Your task to perform on an android device: toggle translation in the chrome app Image 0: 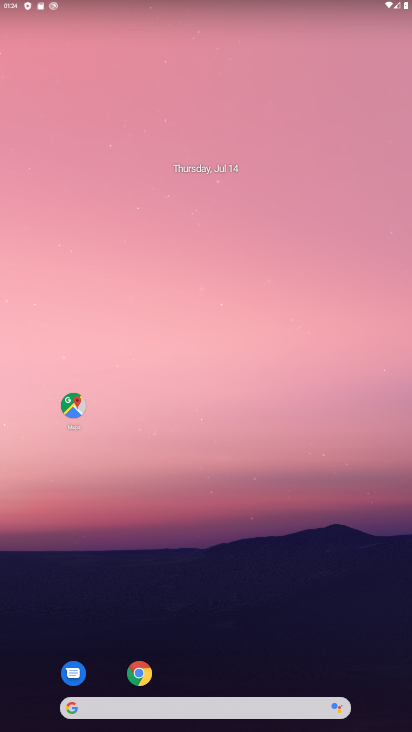
Step 0: click (130, 681)
Your task to perform on an android device: toggle translation in the chrome app Image 1: 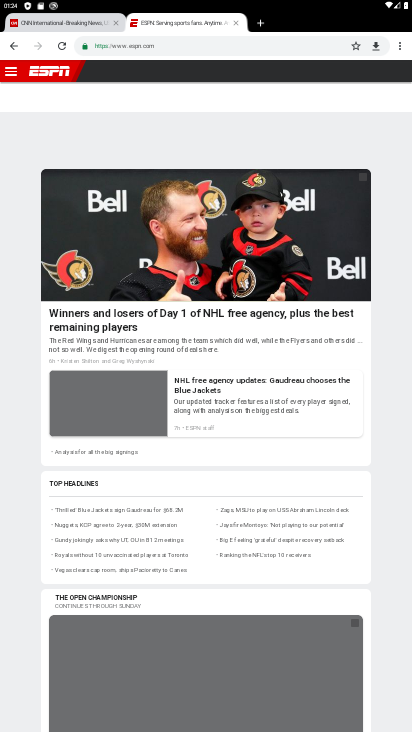
Step 1: click (55, 152)
Your task to perform on an android device: toggle translation in the chrome app Image 2: 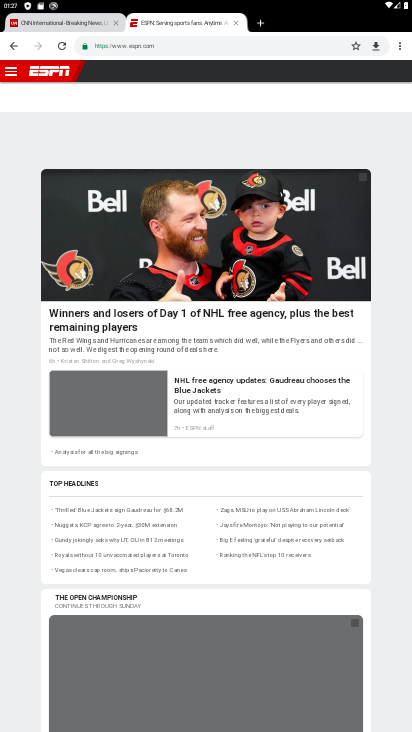
Step 2: click (398, 51)
Your task to perform on an android device: toggle translation in the chrome app Image 3: 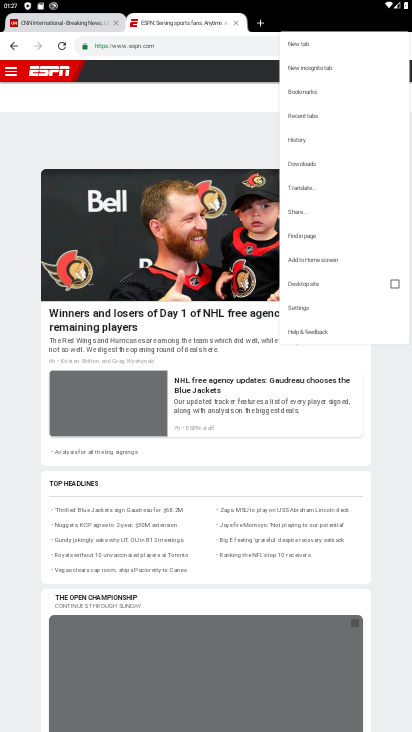
Step 3: click (322, 313)
Your task to perform on an android device: toggle translation in the chrome app Image 4: 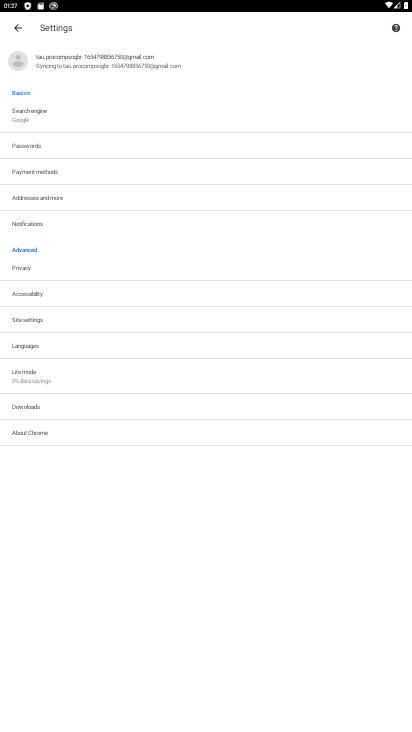
Step 4: click (150, 349)
Your task to perform on an android device: toggle translation in the chrome app Image 5: 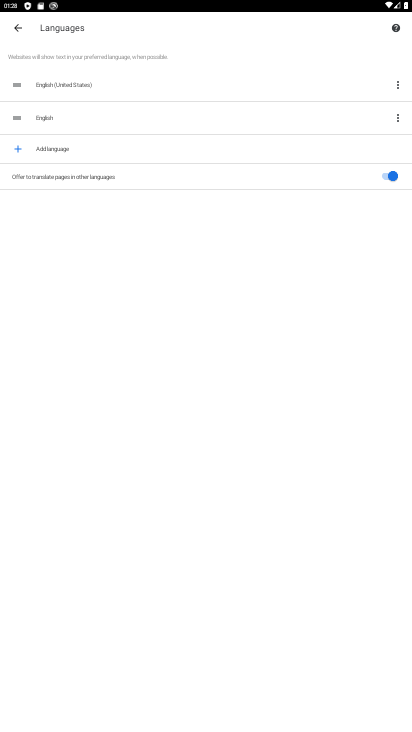
Step 5: task complete